Your task to perform on an android device: Go to network settings Image 0: 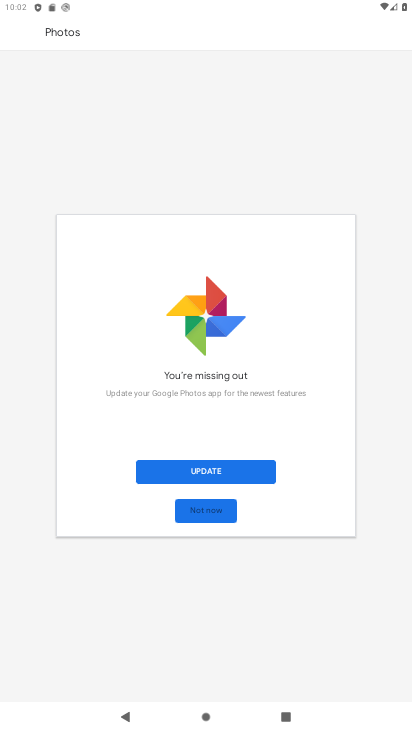
Step 0: press home button
Your task to perform on an android device: Go to network settings Image 1: 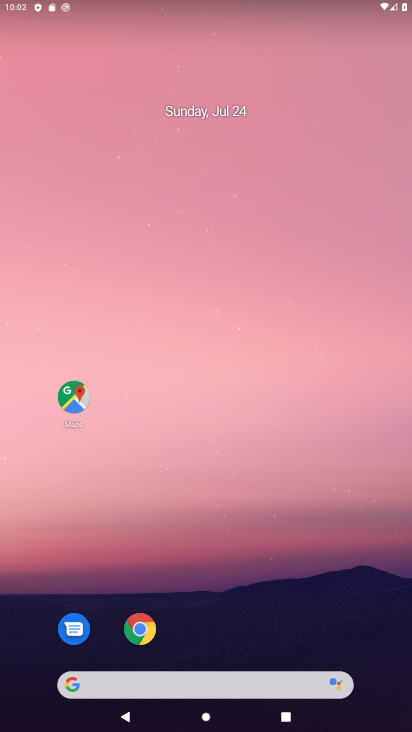
Step 1: drag from (182, 683) to (167, 183)
Your task to perform on an android device: Go to network settings Image 2: 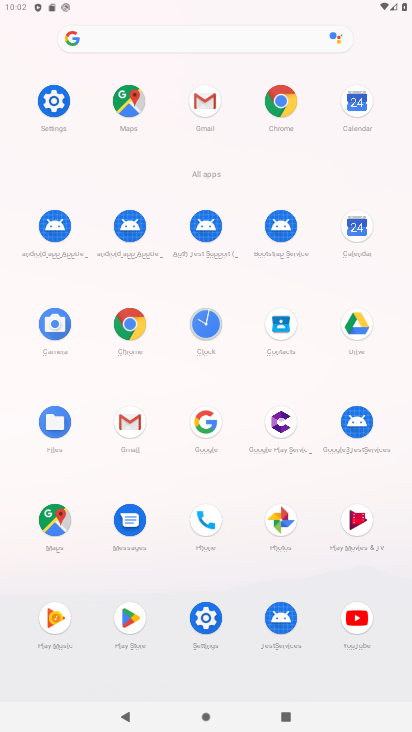
Step 2: click (54, 104)
Your task to perform on an android device: Go to network settings Image 3: 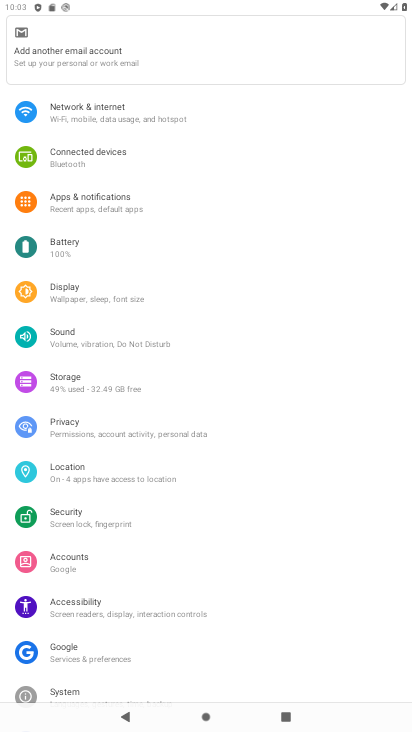
Step 3: click (82, 116)
Your task to perform on an android device: Go to network settings Image 4: 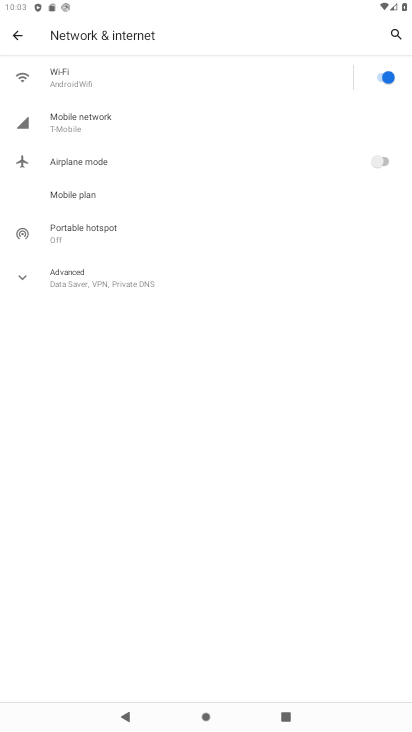
Step 4: task complete